Your task to perform on an android device: empty trash in the gmail app Image 0: 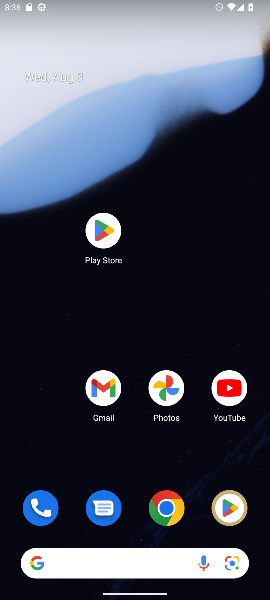
Step 0: drag from (127, 541) to (94, 55)
Your task to perform on an android device: empty trash in the gmail app Image 1: 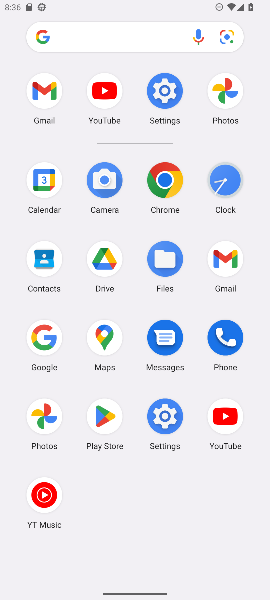
Step 1: click (221, 269)
Your task to perform on an android device: empty trash in the gmail app Image 2: 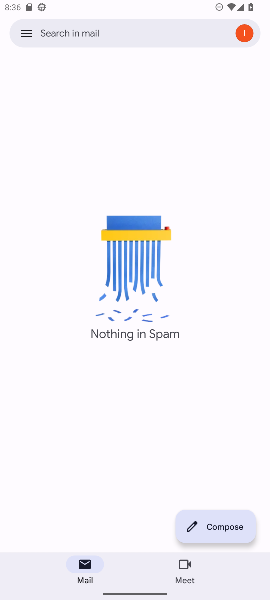
Step 2: click (27, 36)
Your task to perform on an android device: empty trash in the gmail app Image 3: 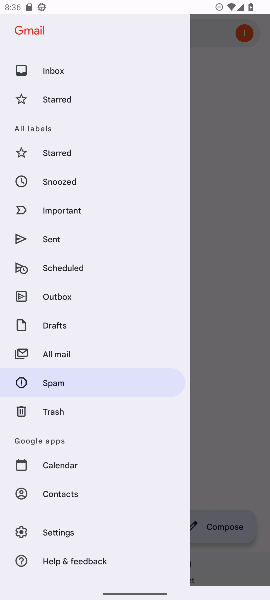
Step 3: click (66, 401)
Your task to perform on an android device: empty trash in the gmail app Image 4: 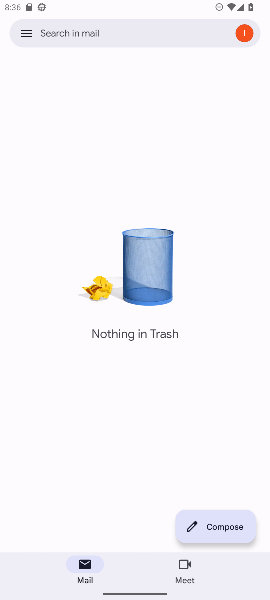
Step 4: task complete